Your task to perform on an android device: Open calendar and show me the third week of next month Image 0: 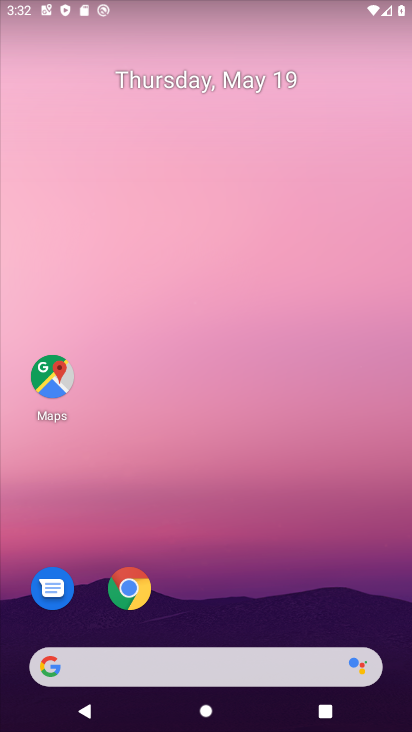
Step 0: click (166, 88)
Your task to perform on an android device: Open calendar and show me the third week of next month Image 1: 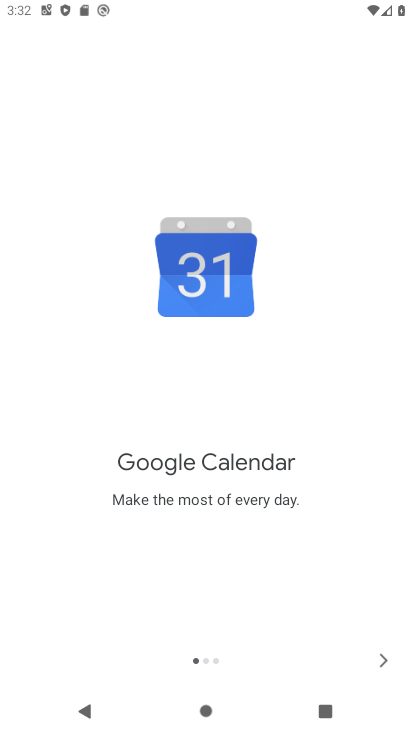
Step 1: click (386, 654)
Your task to perform on an android device: Open calendar and show me the third week of next month Image 2: 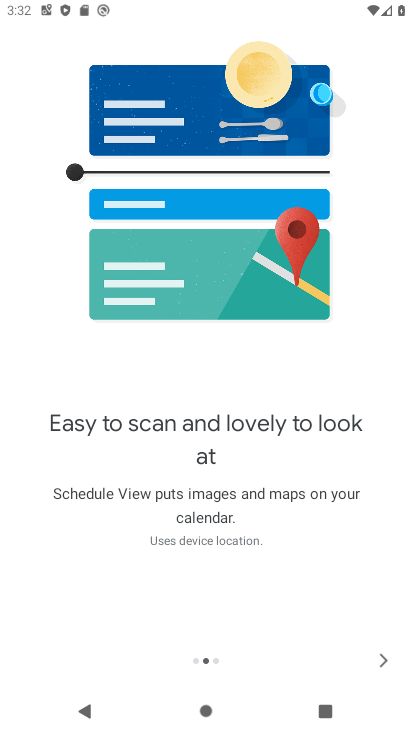
Step 2: click (379, 660)
Your task to perform on an android device: Open calendar and show me the third week of next month Image 3: 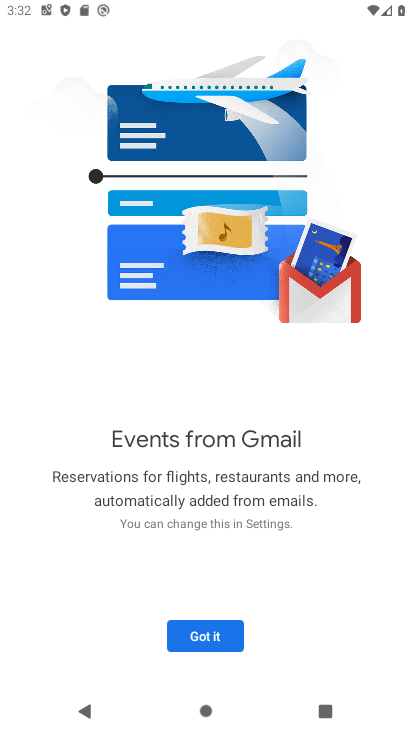
Step 3: click (197, 637)
Your task to perform on an android device: Open calendar and show me the third week of next month Image 4: 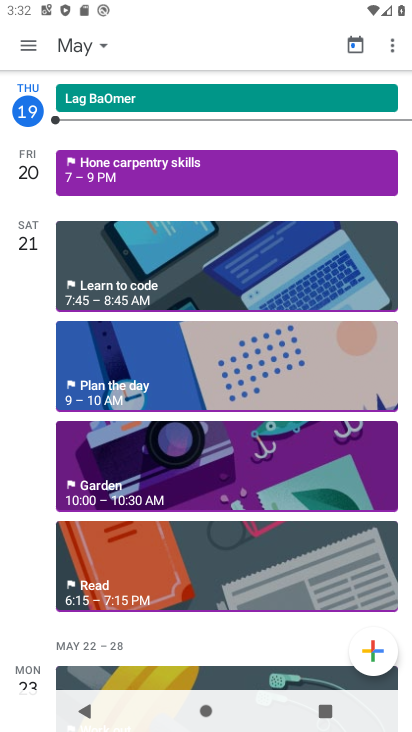
Step 4: click (91, 41)
Your task to perform on an android device: Open calendar and show me the third week of next month Image 5: 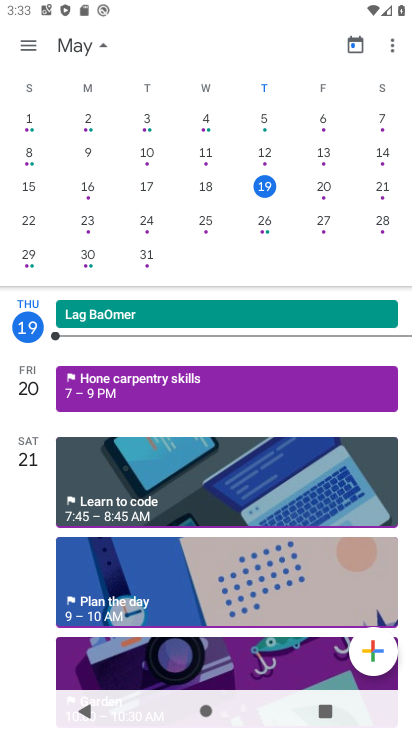
Step 5: drag from (349, 263) to (143, 254)
Your task to perform on an android device: Open calendar and show me the third week of next month Image 6: 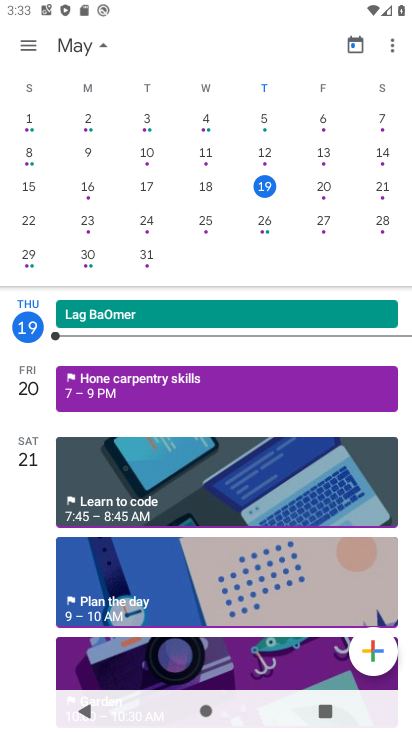
Step 6: drag from (314, 260) to (37, 225)
Your task to perform on an android device: Open calendar and show me the third week of next month Image 7: 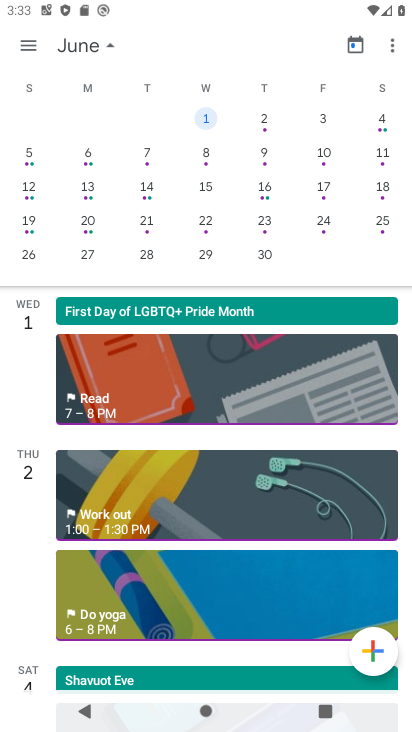
Step 7: click (206, 189)
Your task to perform on an android device: Open calendar and show me the third week of next month Image 8: 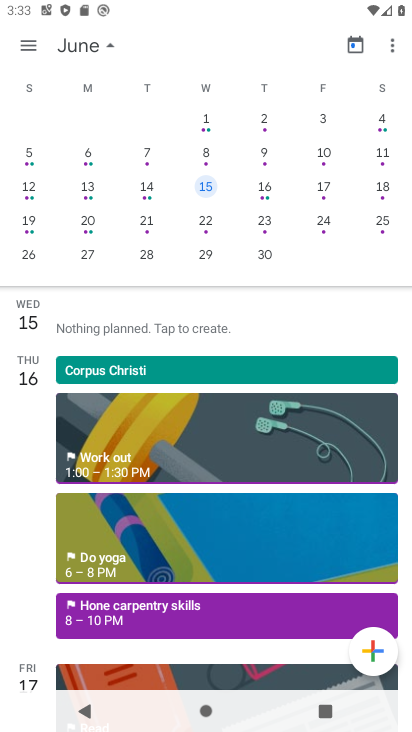
Step 8: task complete